Your task to perform on an android device: Go to ESPN.com Image 0: 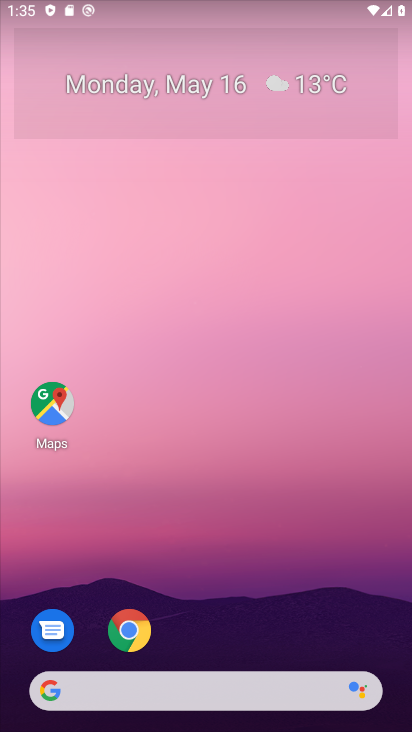
Step 0: drag from (343, 637) to (293, 178)
Your task to perform on an android device: Go to ESPN.com Image 1: 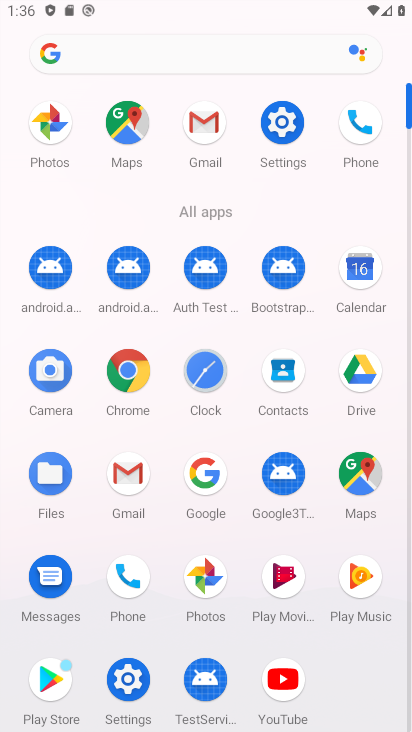
Step 1: click (131, 378)
Your task to perform on an android device: Go to ESPN.com Image 2: 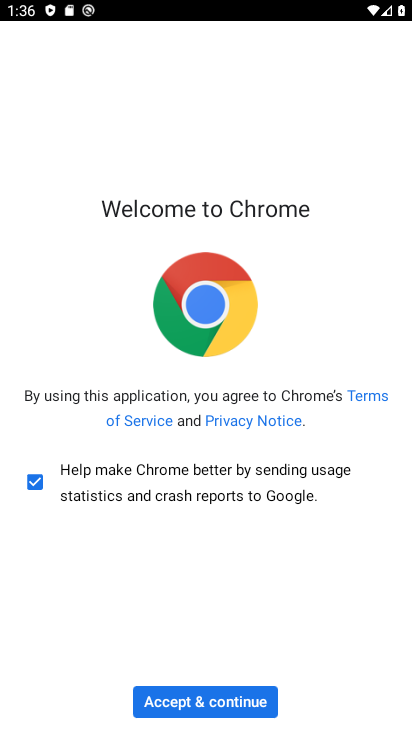
Step 2: click (188, 709)
Your task to perform on an android device: Go to ESPN.com Image 3: 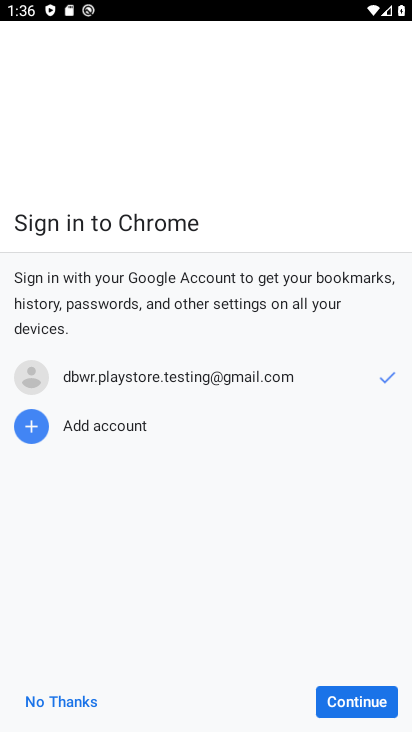
Step 3: click (378, 695)
Your task to perform on an android device: Go to ESPN.com Image 4: 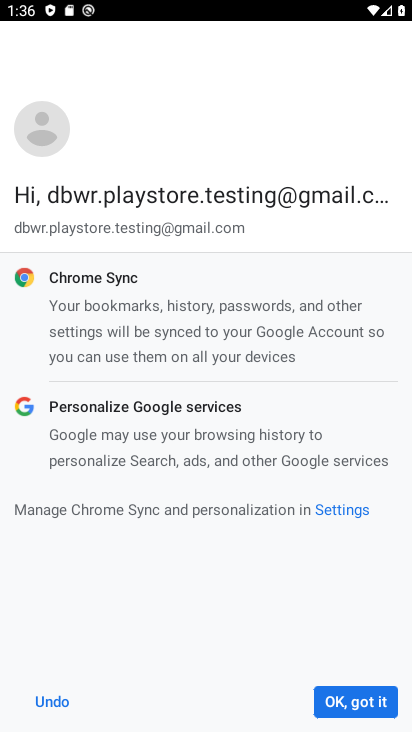
Step 4: click (379, 696)
Your task to perform on an android device: Go to ESPN.com Image 5: 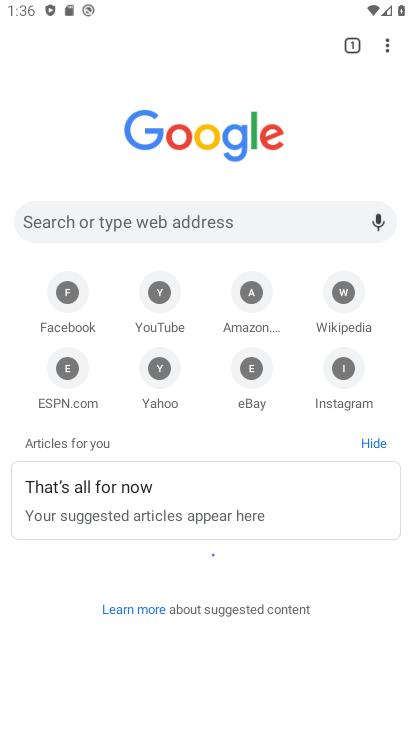
Step 5: click (199, 233)
Your task to perform on an android device: Go to ESPN.com Image 6: 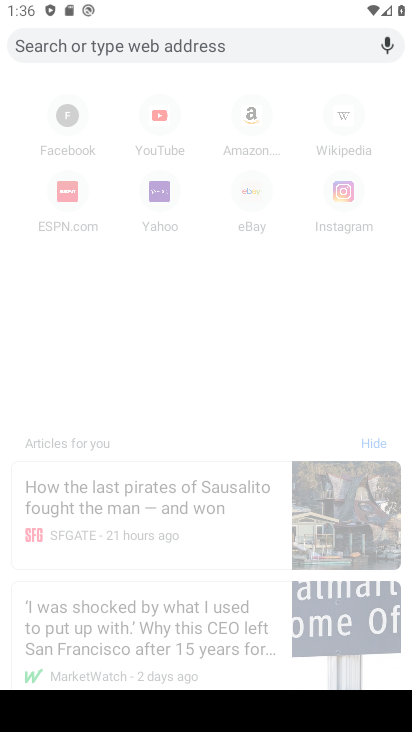
Step 6: type "espn"
Your task to perform on an android device: Go to ESPN.com Image 7: 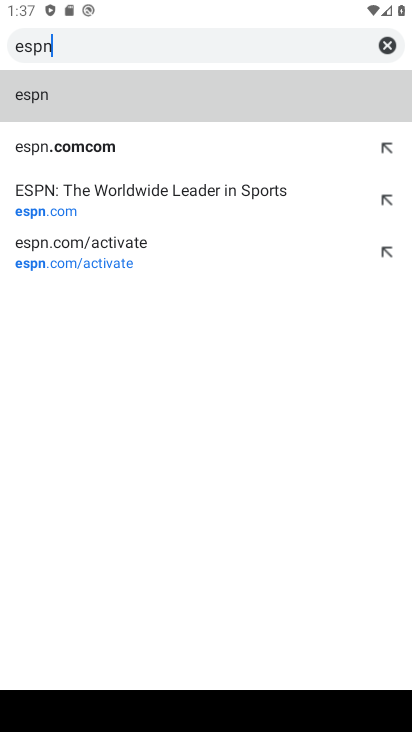
Step 7: click (68, 250)
Your task to perform on an android device: Go to ESPN.com Image 8: 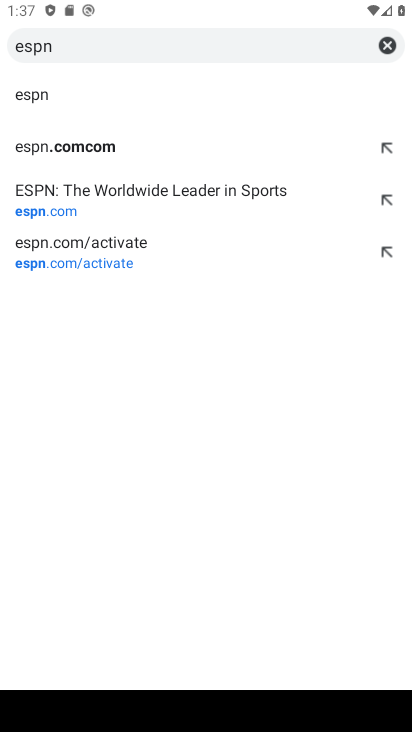
Step 8: click (70, 256)
Your task to perform on an android device: Go to ESPN.com Image 9: 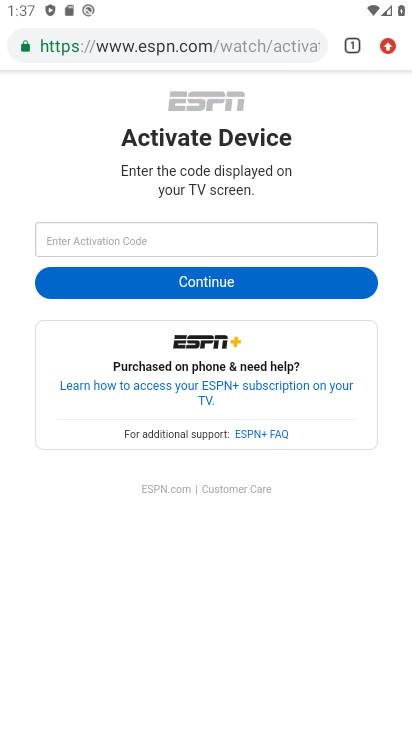
Step 9: task complete